Your task to perform on an android device: toggle priority inbox in the gmail app Image 0: 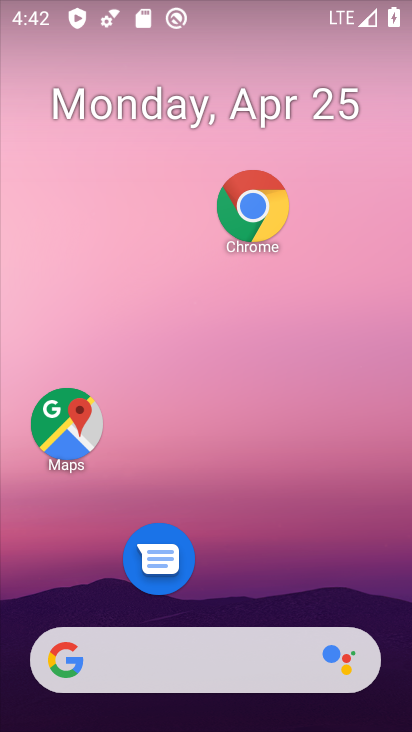
Step 0: drag from (275, 478) to (191, 0)
Your task to perform on an android device: toggle priority inbox in the gmail app Image 1: 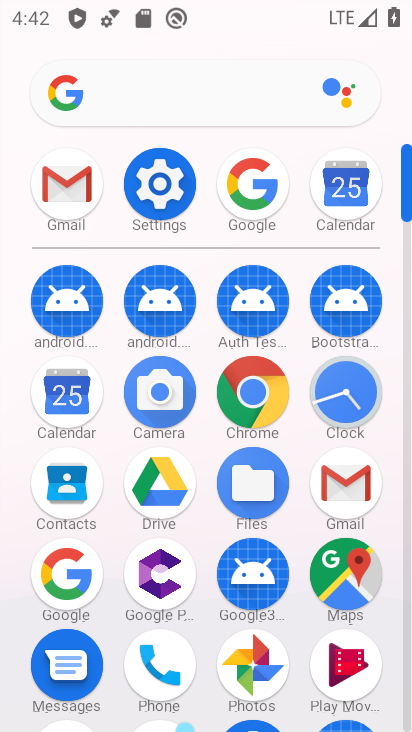
Step 1: click (68, 179)
Your task to perform on an android device: toggle priority inbox in the gmail app Image 2: 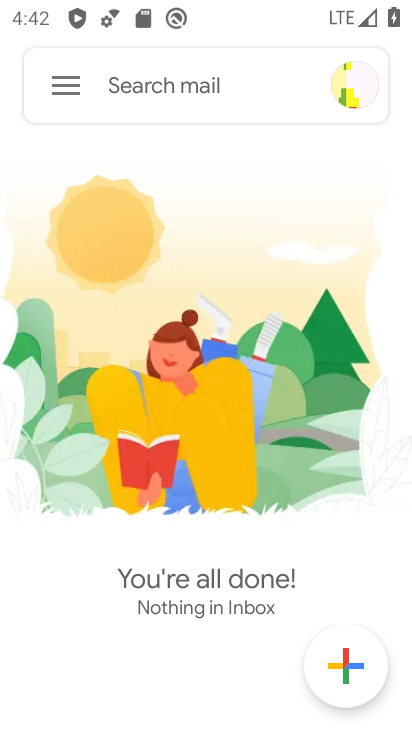
Step 2: click (71, 86)
Your task to perform on an android device: toggle priority inbox in the gmail app Image 3: 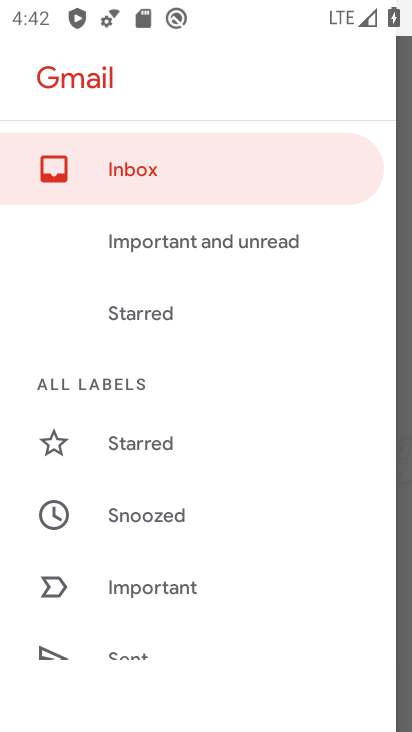
Step 3: drag from (232, 542) to (265, 408)
Your task to perform on an android device: toggle priority inbox in the gmail app Image 4: 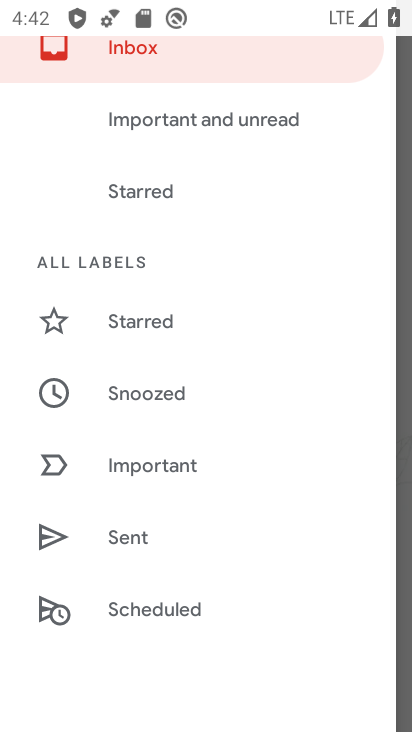
Step 4: drag from (183, 543) to (228, 396)
Your task to perform on an android device: toggle priority inbox in the gmail app Image 5: 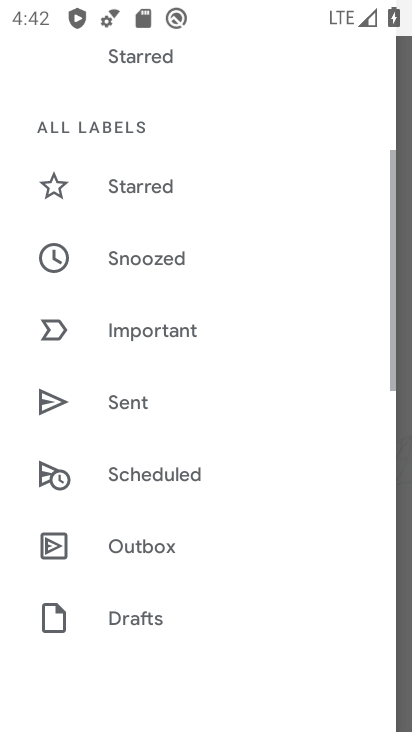
Step 5: drag from (194, 501) to (248, 420)
Your task to perform on an android device: toggle priority inbox in the gmail app Image 6: 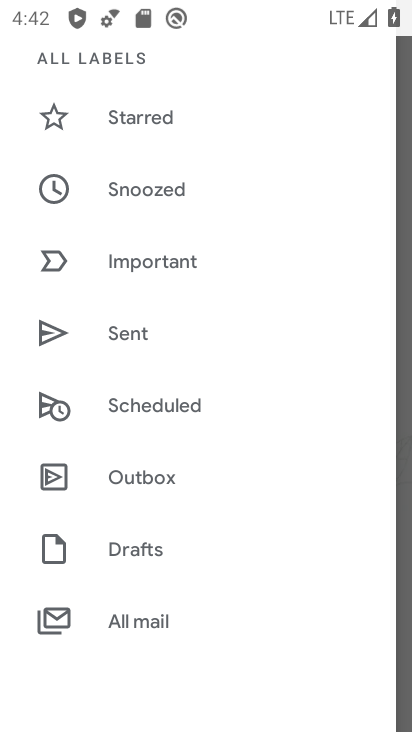
Step 6: drag from (195, 523) to (231, 444)
Your task to perform on an android device: toggle priority inbox in the gmail app Image 7: 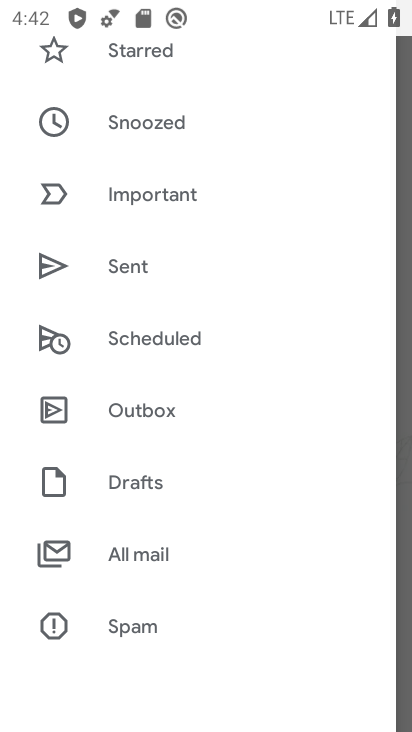
Step 7: drag from (176, 589) to (239, 468)
Your task to perform on an android device: toggle priority inbox in the gmail app Image 8: 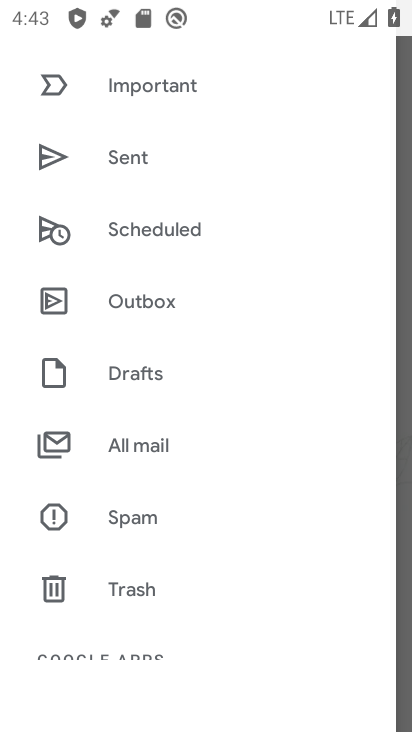
Step 8: drag from (210, 630) to (243, 549)
Your task to perform on an android device: toggle priority inbox in the gmail app Image 9: 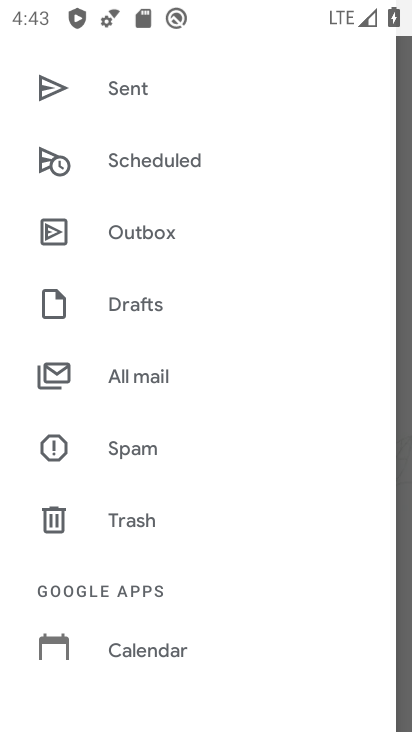
Step 9: drag from (199, 490) to (232, 429)
Your task to perform on an android device: toggle priority inbox in the gmail app Image 10: 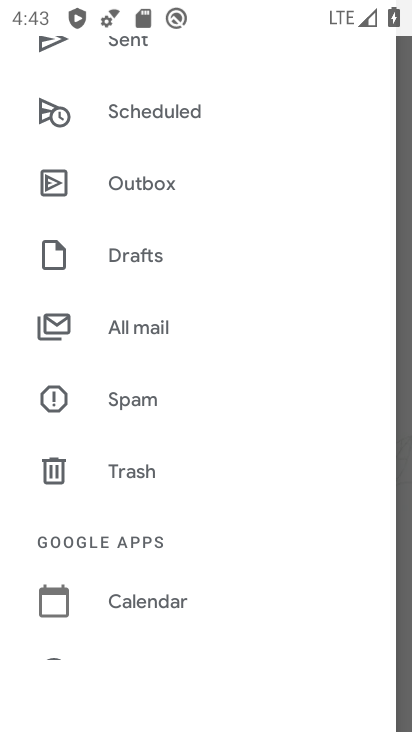
Step 10: drag from (212, 604) to (215, 514)
Your task to perform on an android device: toggle priority inbox in the gmail app Image 11: 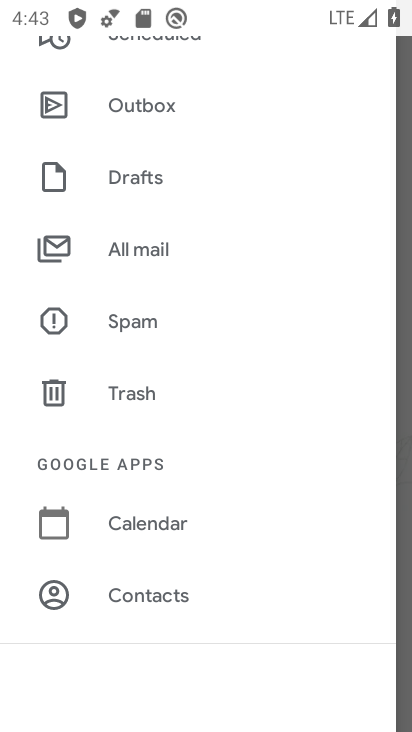
Step 11: drag from (214, 602) to (229, 486)
Your task to perform on an android device: toggle priority inbox in the gmail app Image 12: 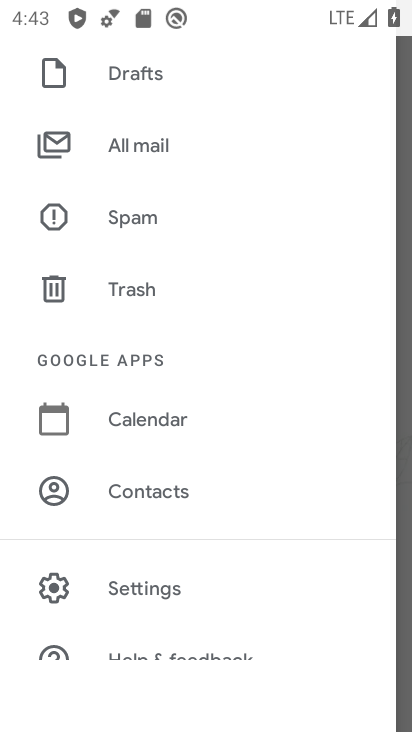
Step 12: click (174, 588)
Your task to perform on an android device: toggle priority inbox in the gmail app Image 13: 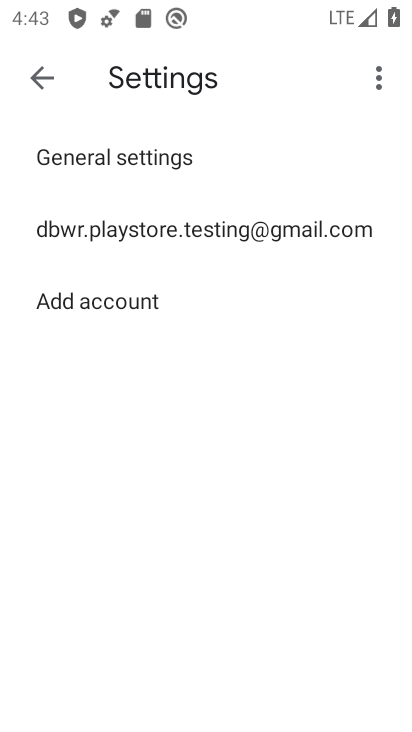
Step 13: click (173, 228)
Your task to perform on an android device: toggle priority inbox in the gmail app Image 14: 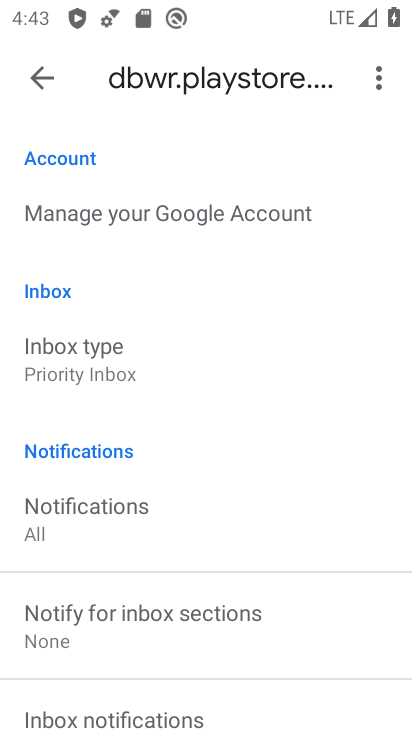
Step 14: click (122, 378)
Your task to perform on an android device: toggle priority inbox in the gmail app Image 15: 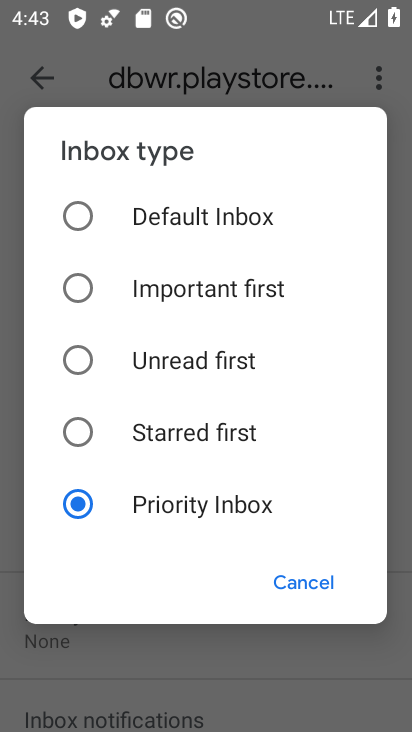
Step 15: click (88, 228)
Your task to perform on an android device: toggle priority inbox in the gmail app Image 16: 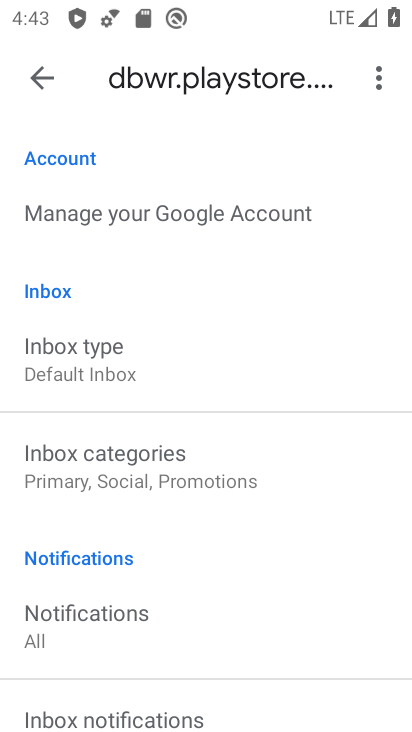
Step 16: task complete